Your task to perform on an android device: turn pop-ups off in chrome Image 0: 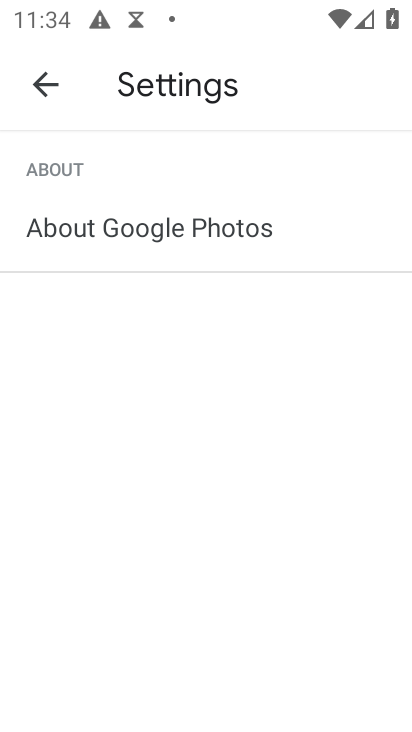
Step 0: press home button
Your task to perform on an android device: turn pop-ups off in chrome Image 1: 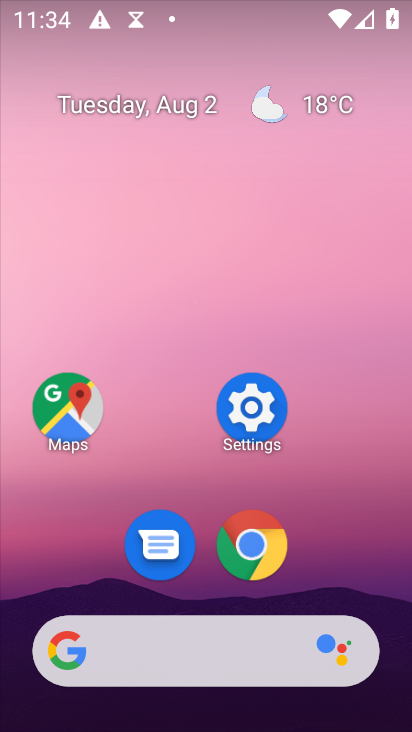
Step 1: click (252, 556)
Your task to perform on an android device: turn pop-ups off in chrome Image 2: 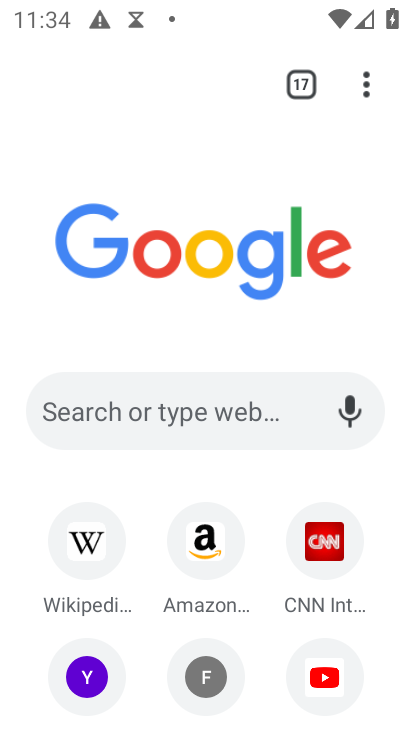
Step 2: drag from (366, 85) to (162, 603)
Your task to perform on an android device: turn pop-ups off in chrome Image 3: 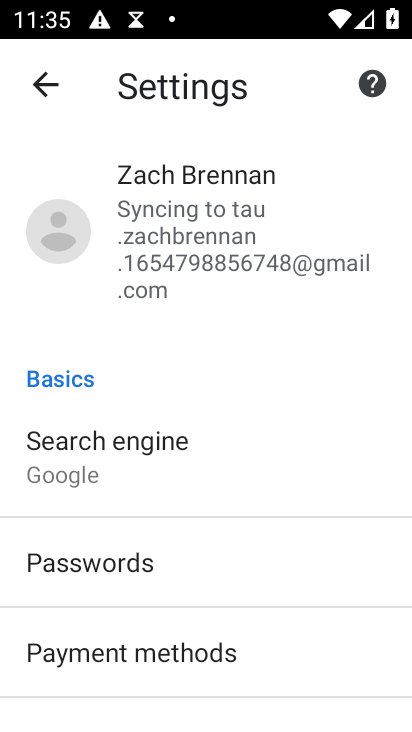
Step 3: drag from (238, 619) to (312, 77)
Your task to perform on an android device: turn pop-ups off in chrome Image 4: 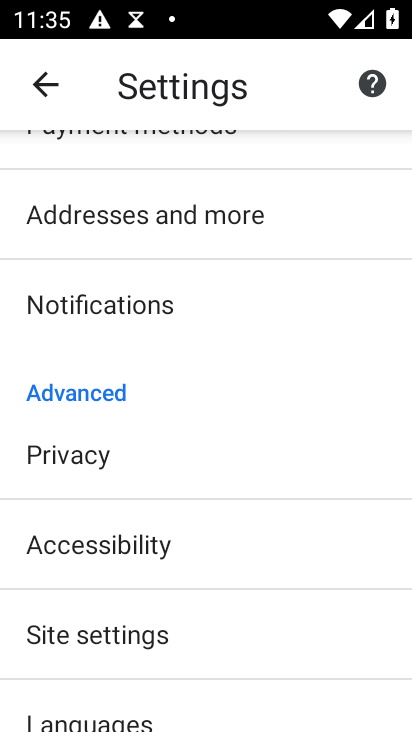
Step 4: click (111, 634)
Your task to perform on an android device: turn pop-ups off in chrome Image 5: 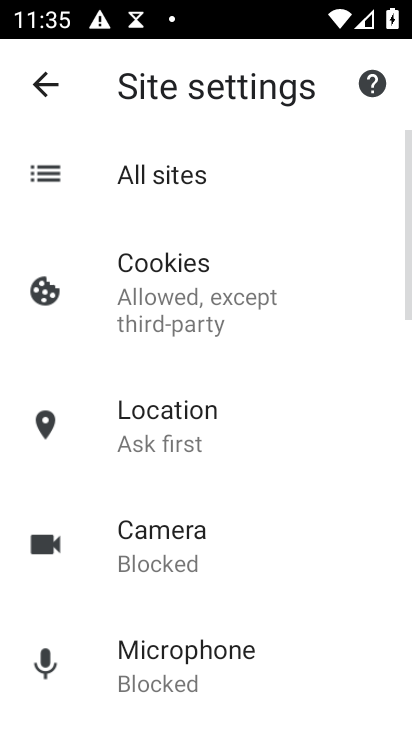
Step 5: drag from (273, 604) to (402, 181)
Your task to perform on an android device: turn pop-ups off in chrome Image 6: 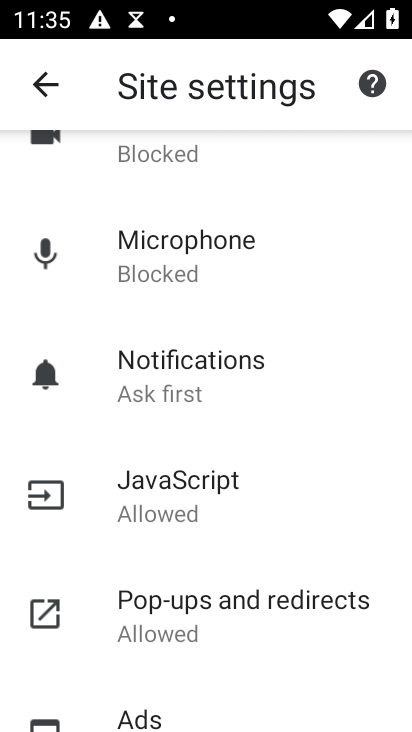
Step 6: click (168, 609)
Your task to perform on an android device: turn pop-ups off in chrome Image 7: 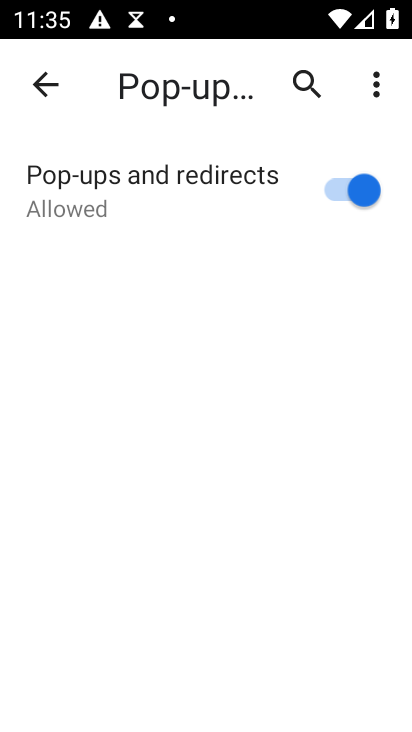
Step 7: task complete